Your task to perform on an android device: Open Chrome and go to settings Image 0: 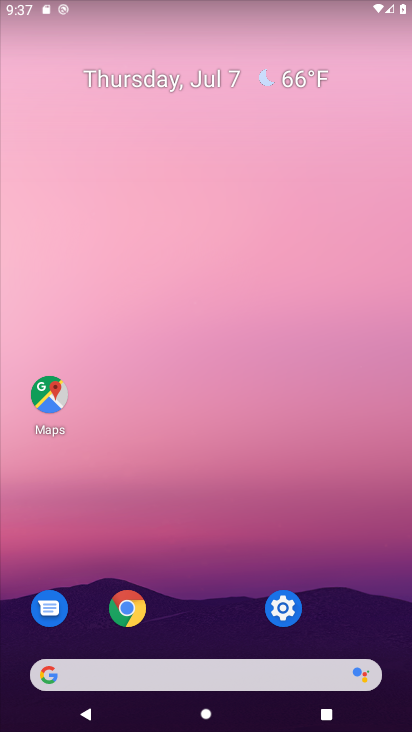
Step 0: click (112, 609)
Your task to perform on an android device: Open Chrome and go to settings Image 1: 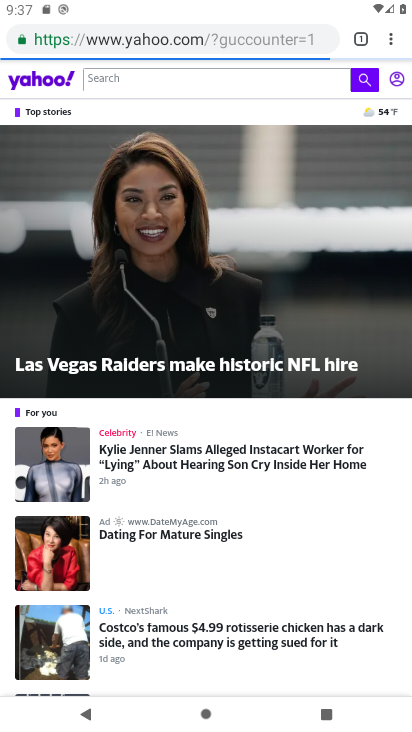
Step 1: click (379, 45)
Your task to perform on an android device: Open Chrome and go to settings Image 2: 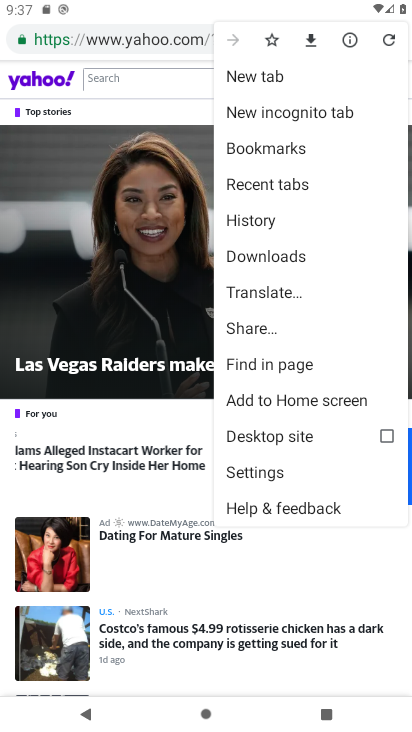
Step 2: click (258, 463)
Your task to perform on an android device: Open Chrome and go to settings Image 3: 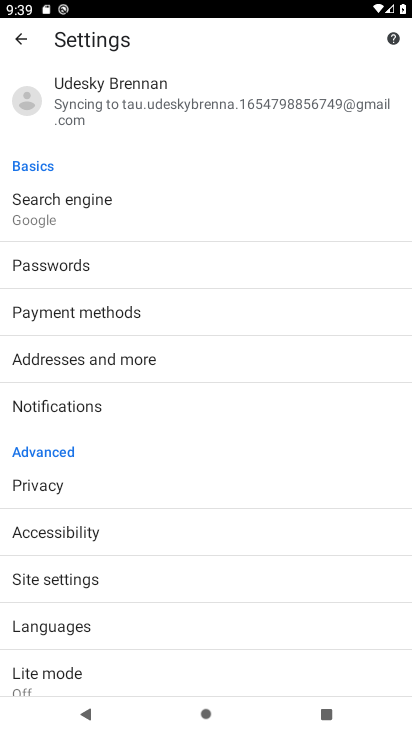
Step 3: task complete